Your task to perform on an android device: open app "Microsoft Excel" (install if not already installed) Image 0: 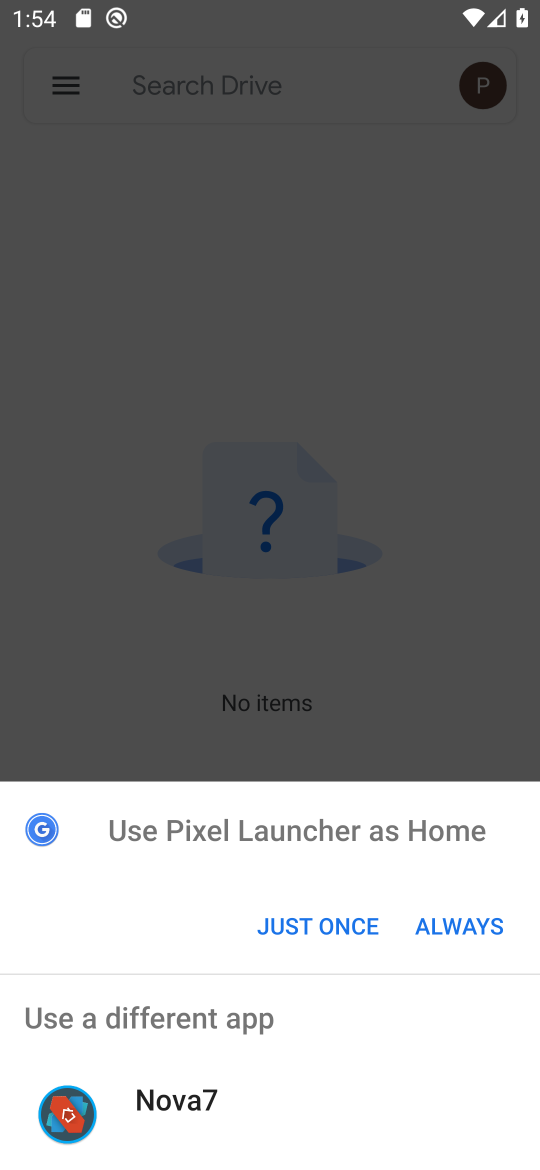
Step 0: click (67, 919)
Your task to perform on an android device: open app "Microsoft Excel" (install if not already installed) Image 1: 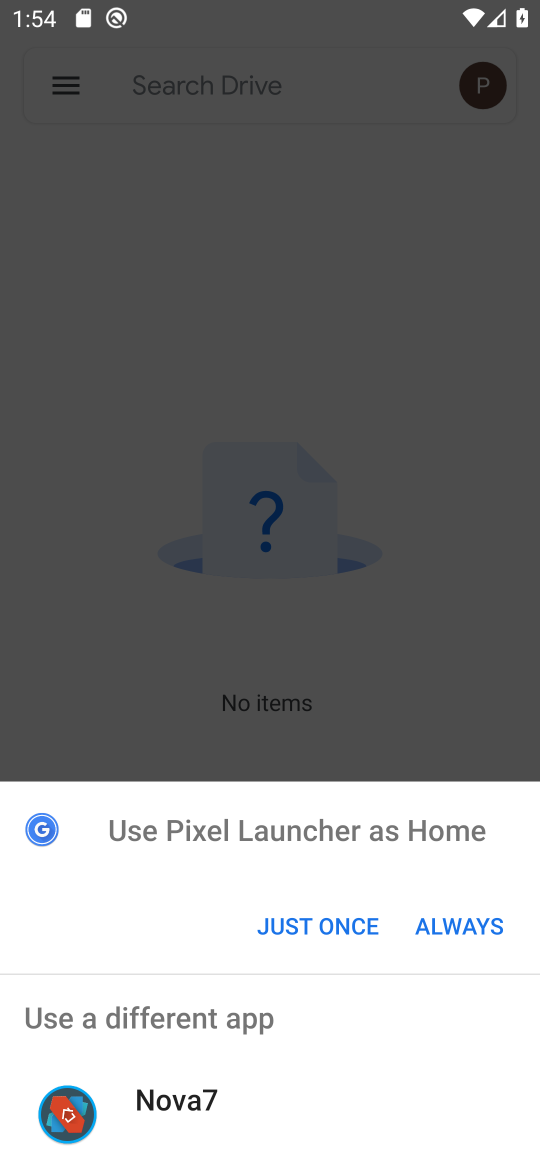
Step 1: click (263, 910)
Your task to perform on an android device: open app "Microsoft Excel" (install if not already installed) Image 2: 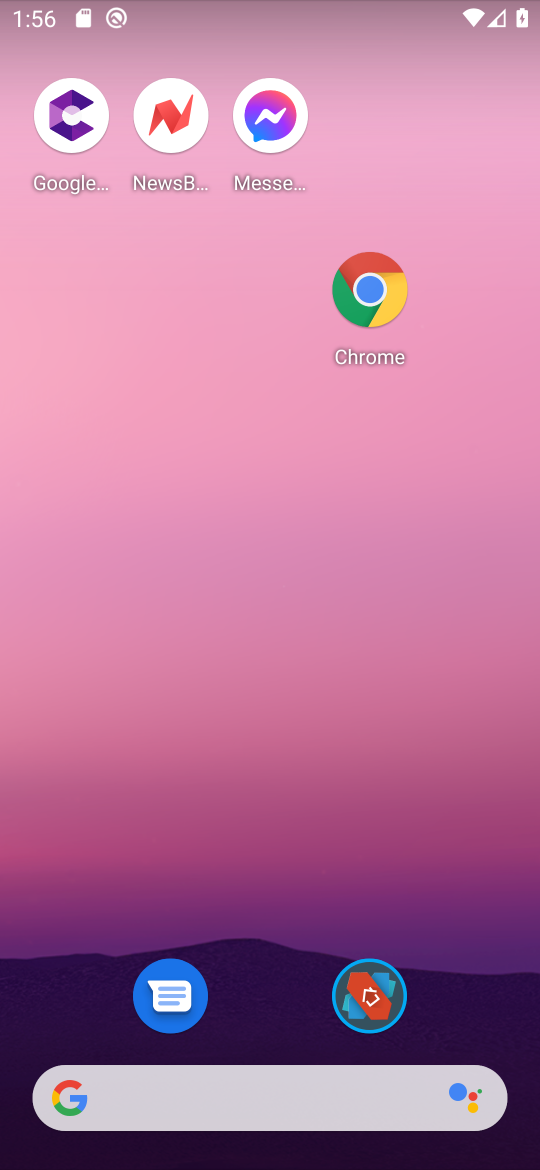
Step 2: drag from (232, 999) to (265, 82)
Your task to perform on an android device: open app "Microsoft Excel" (install if not already installed) Image 3: 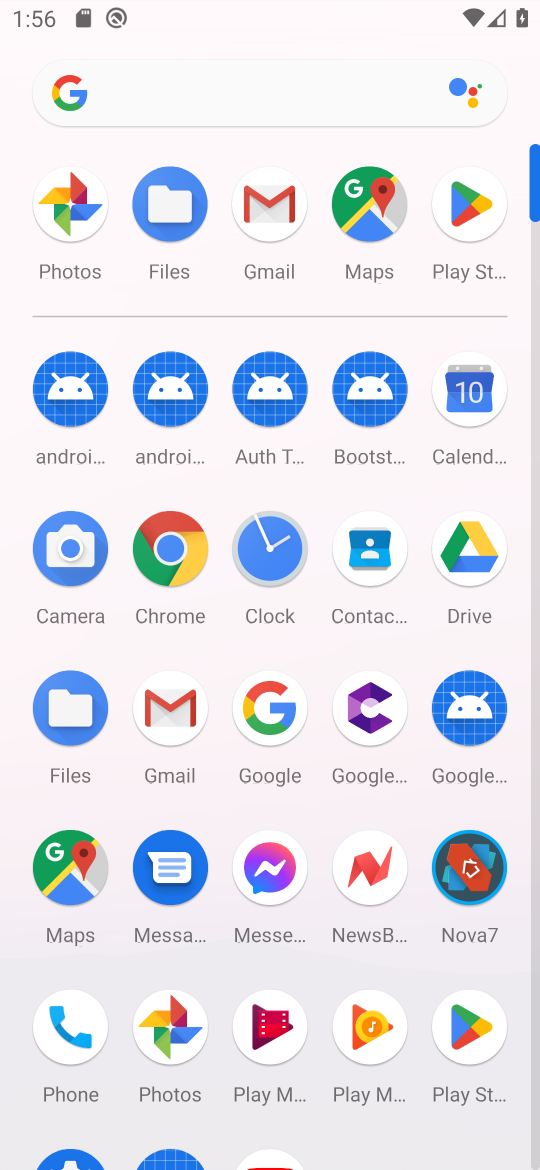
Step 3: click (453, 212)
Your task to perform on an android device: open app "Microsoft Excel" (install if not already installed) Image 4: 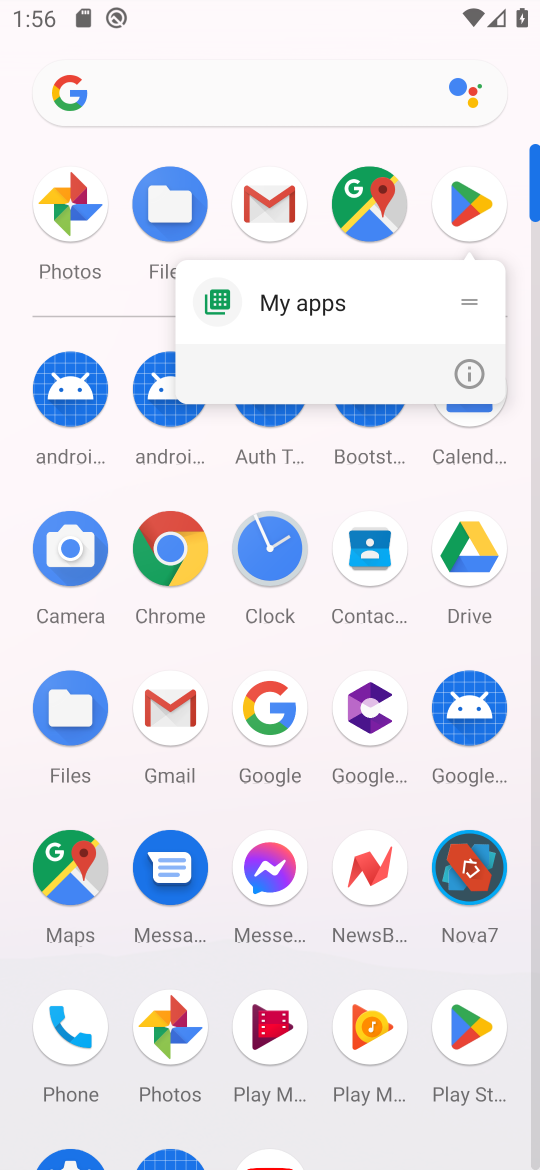
Step 4: click (453, 213)
Your task to perform on an android device: open app "Microsoft Excel" (install if not already installed) Image 5: 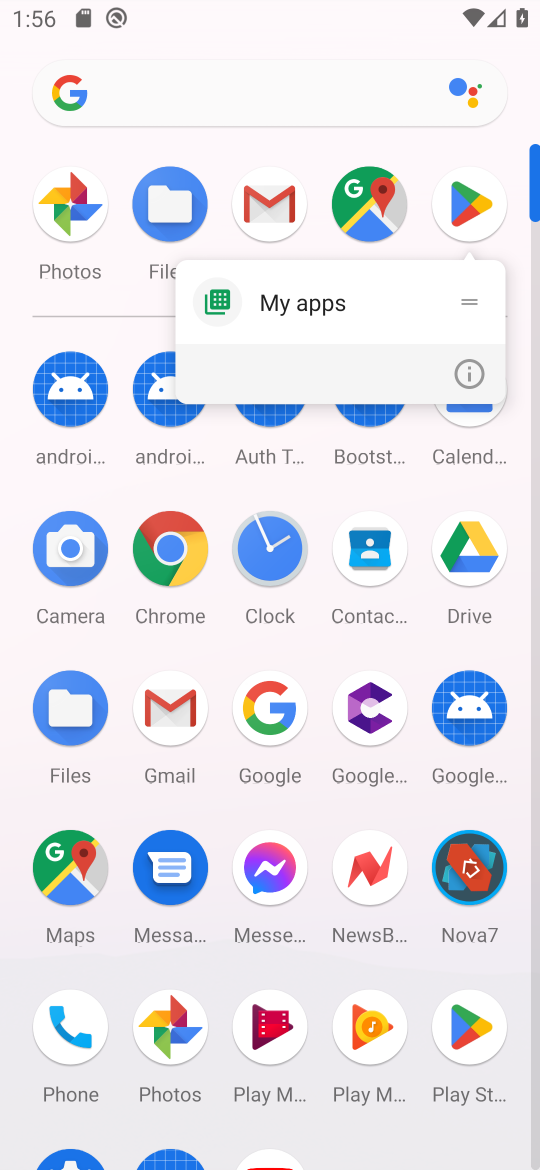
Step 5: click (453, 213)
Your task to perform on an android device: open app "Microsoft Excel" (install if not already installed) Image 6: 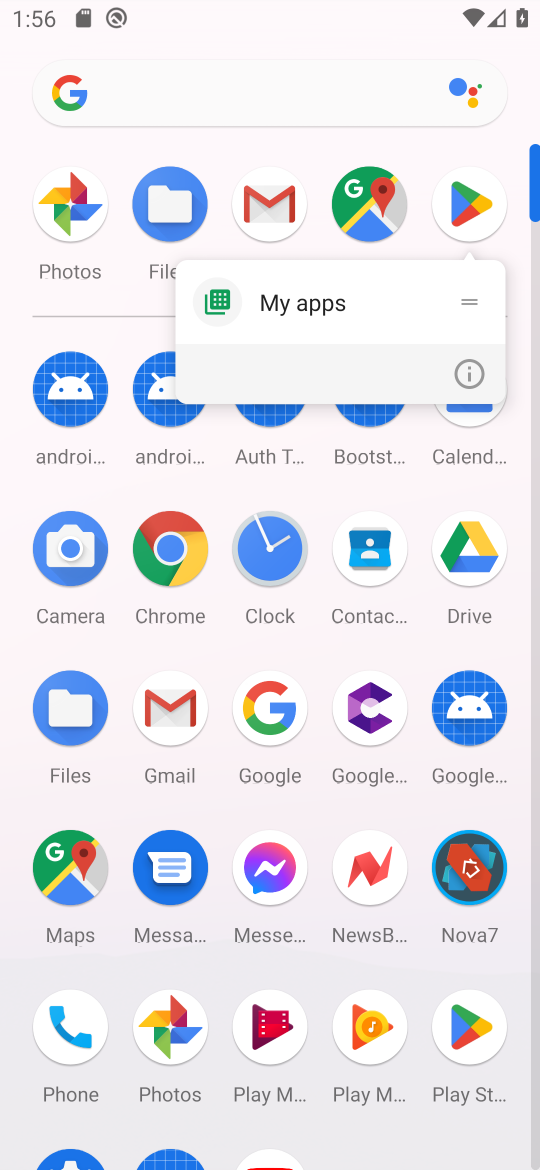
Step 6: click (453, 212)
Your task to perform on an android device: open app "Microsoft Excel" (install if not already installed) Image 7: 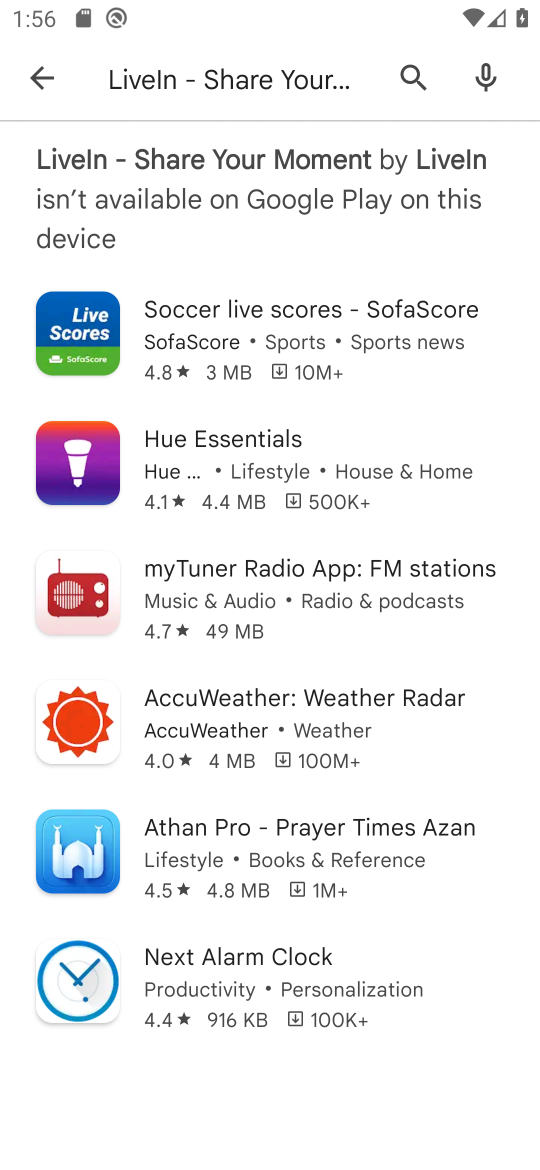
Step 7: press back button
Your task to perform on an android device: open app "Microsoft Excel" (install if not already installed) Image 8: 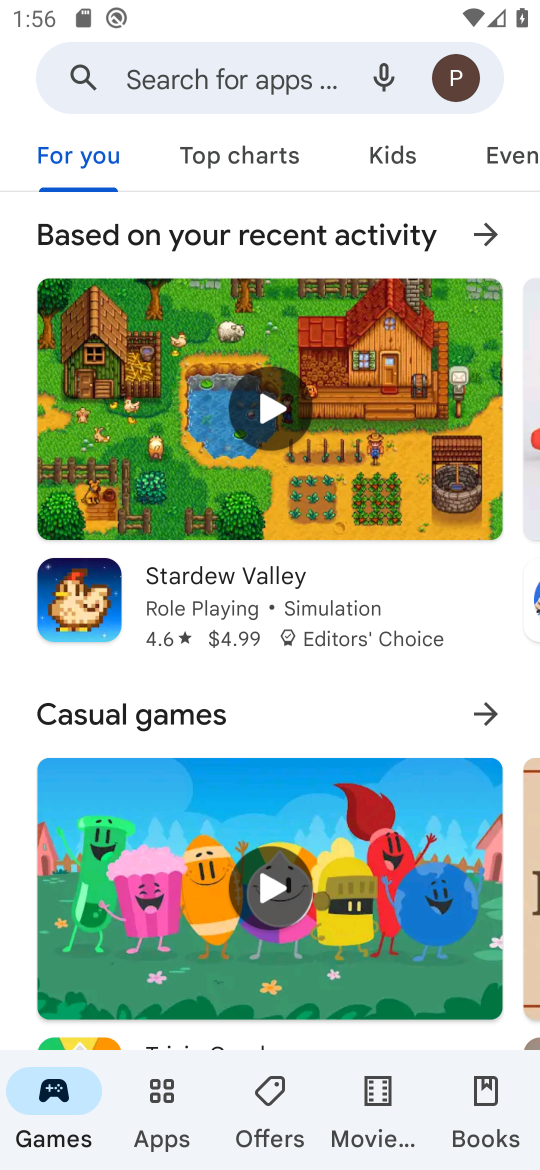
Step 8: click (172, 85)
Your task to perform on an android device: open app "Microsoft Excel" (install if not already installed) Image 9: 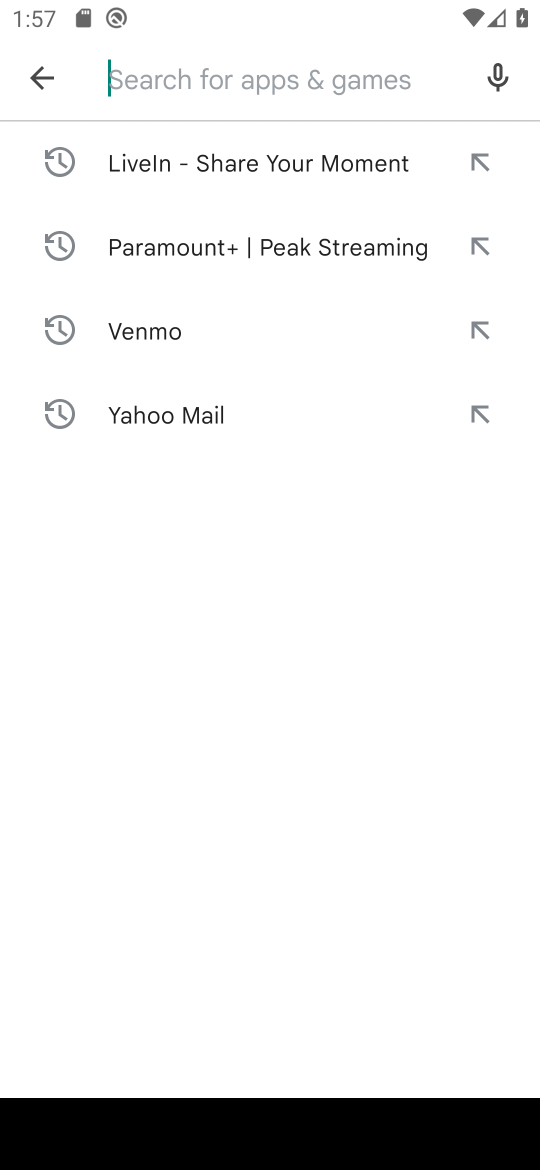
Step 9: type "Microsoft Excel"
Your task to perform on an android device: open app "Microsoft Excel" (install if not already installed) Image 10: 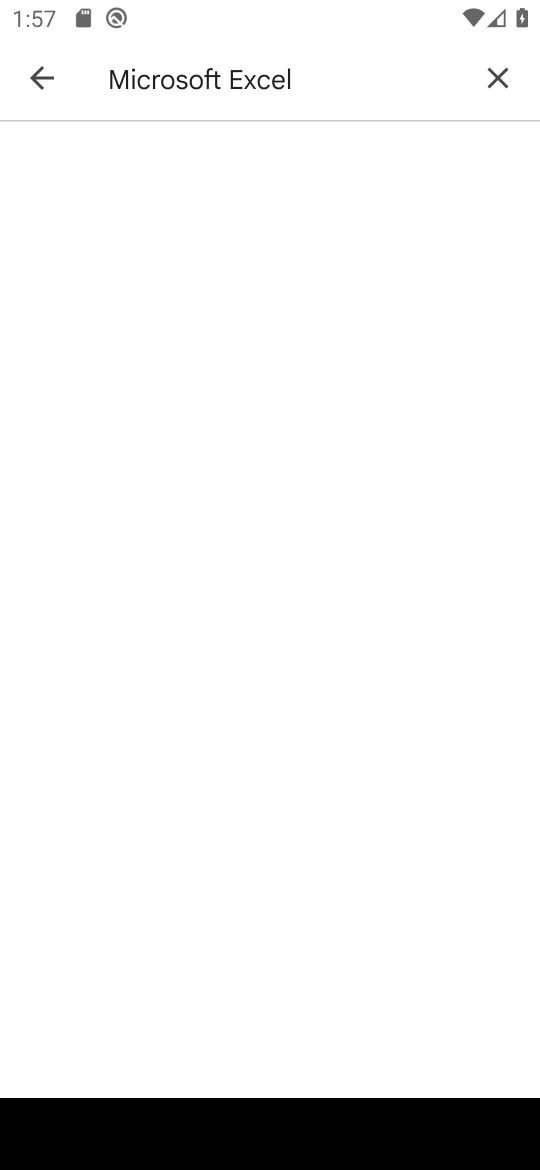
Step 10: press enter
Your task to perform on an android device: open app "Microsoft Excel" (install if not already installed) Image 11: 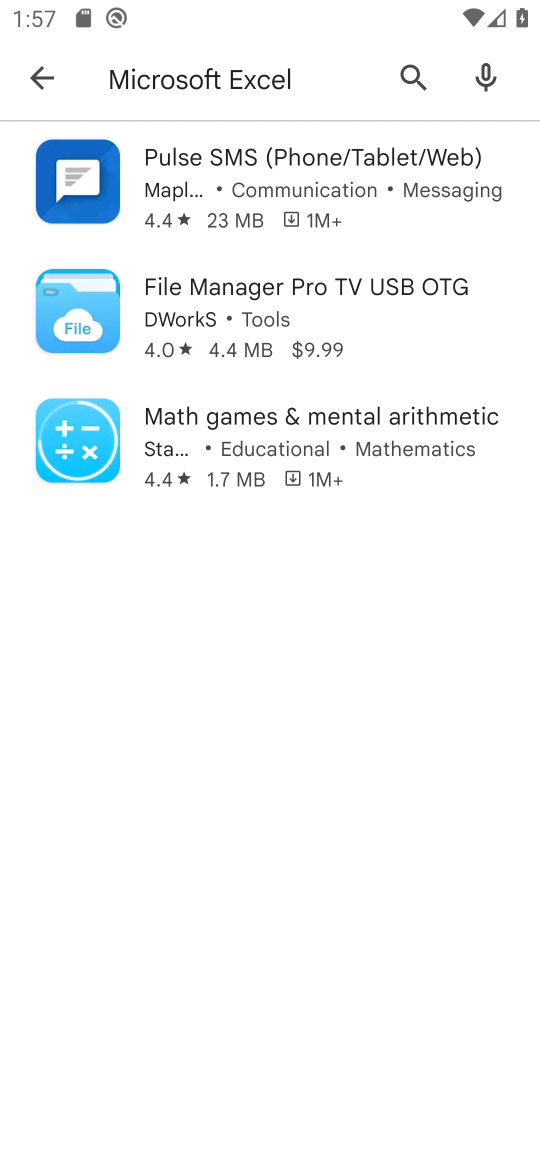
Step 11: task complete